Your task to perform on an android device: read, delete, or share a saved page in the chrome app Image 0: 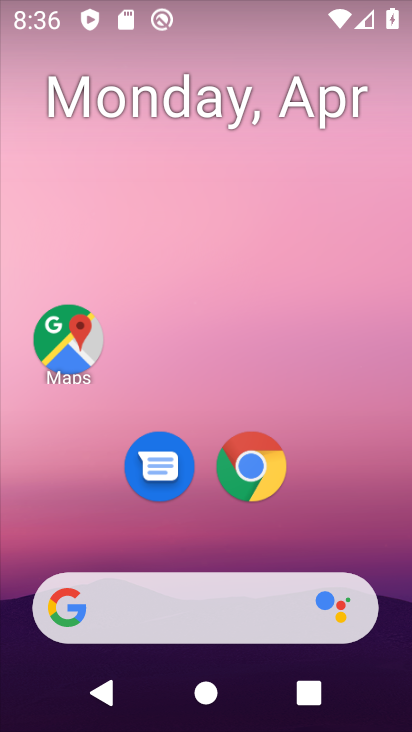
Step 0: drag from (214, 537) to (238, 129)
Your task to perform on an android device: read, delete, or share a saved page in the chrome app Image 1: 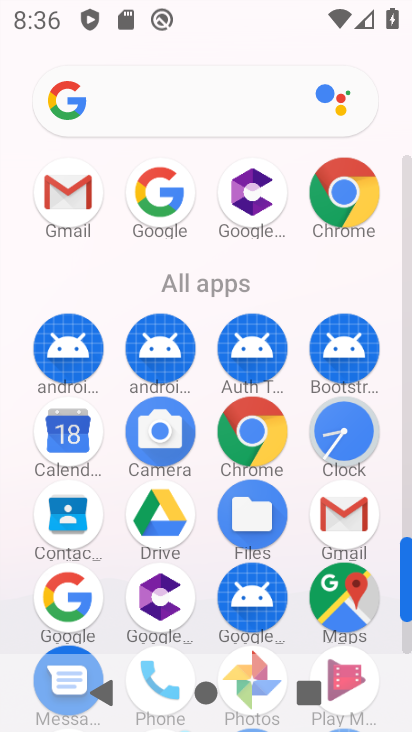
Step 1: click (347, 195)
Your task to perform on an android device: read, delete, or share a saved page in the chrome app Image 2: 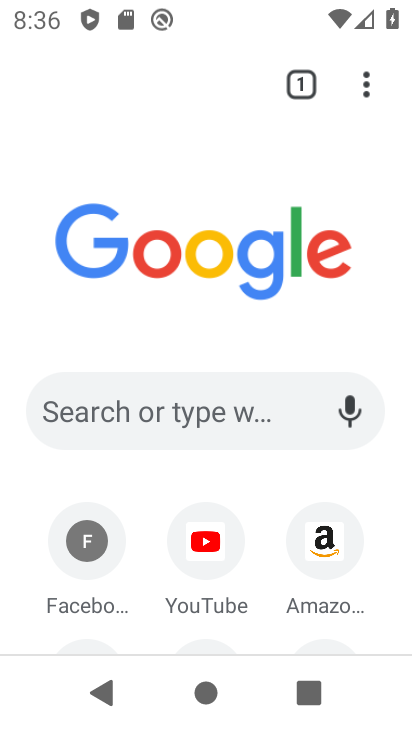
Step 2: click (371, 84)
Your task to perform on an android device: read, delete, or share a saved page in the chrome app Image 3: 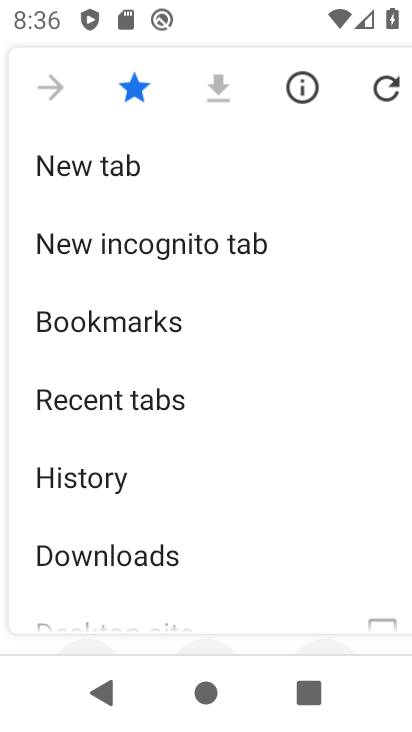
Step 3: drag from (176, 460) to (223, 363)
Your task to perform on an android device: read, delete, or share a saved page in the chrome app Image 4: 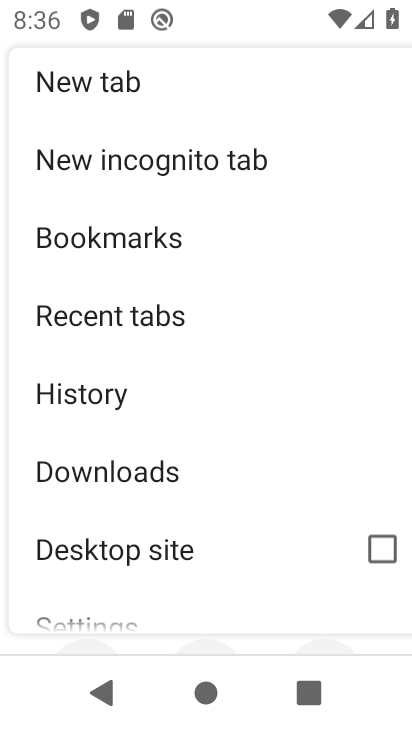
Step 4: drag from (223, 476) to (261, 398)
Your task to perform on an android device: read, delete, or share a saved page in the chrome app Image 5: 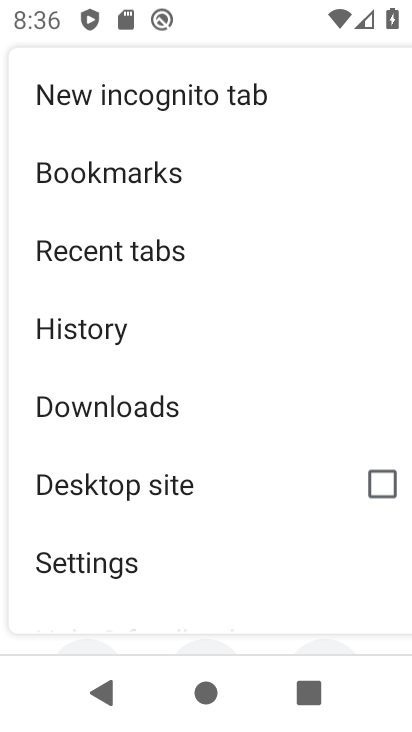
Step 5: click (158, 407)
Your task to perform on an android device: read, delete, or share a saved page in the chrome app Image 6: 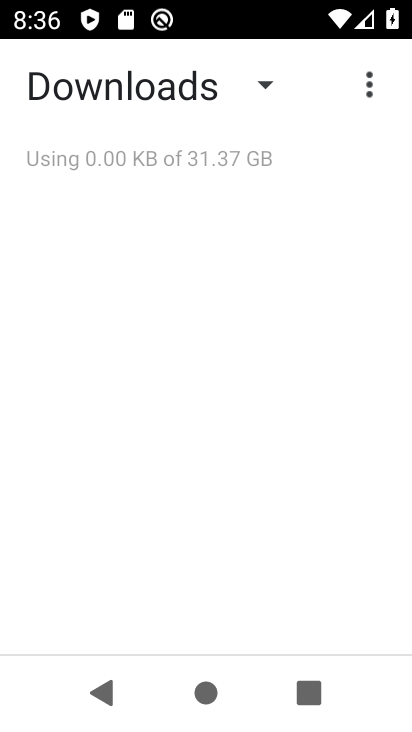
Step 6: click (267, 85)
Your task to perform on an android device: read, delete, or share a saved page in the chrome app Image 7: 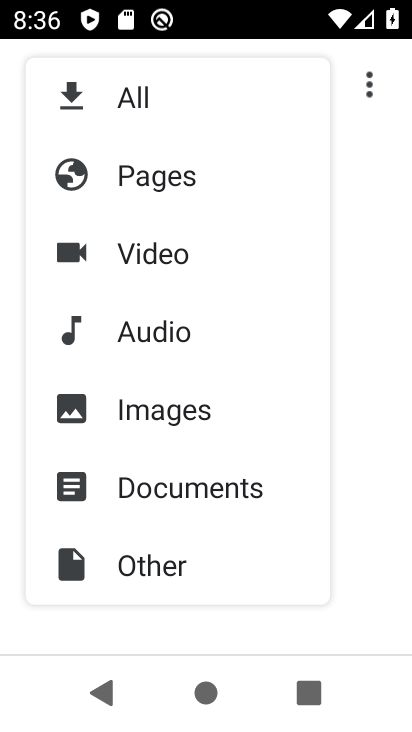
Step 7: click (177, 187)
Your task to perform on an android device: read, delete, or share a saved page in the chrome app Image 8: 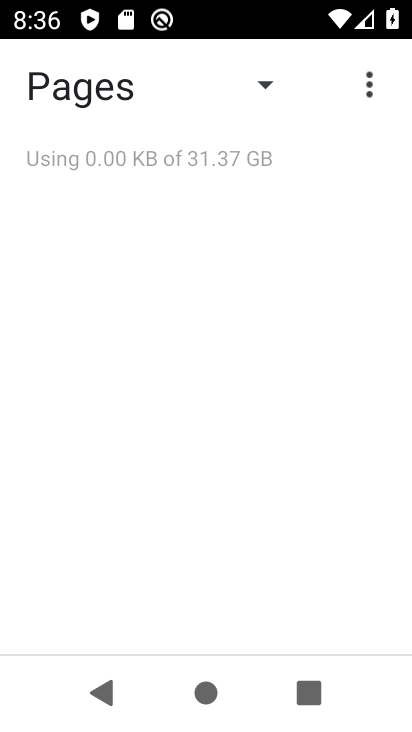
Step 8: click (260, 83)
Your task to perform on an android device: read, delete, or share a saved page in the chrome app Image 9: 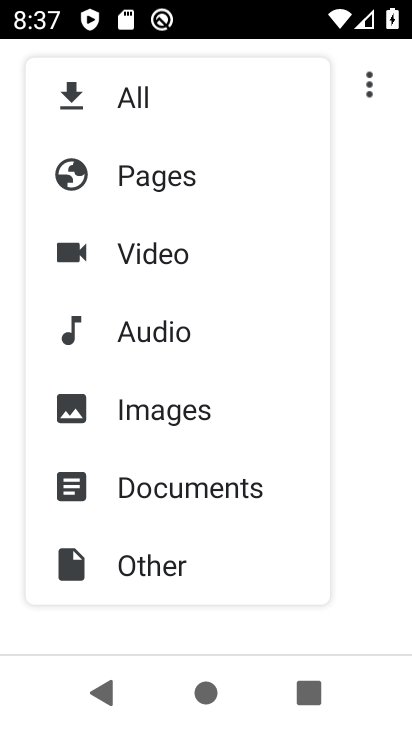
Step 9: click (151, 113)
Your task to perform on an android device: read, delete, or share a saved page in the chrome app Image 10: 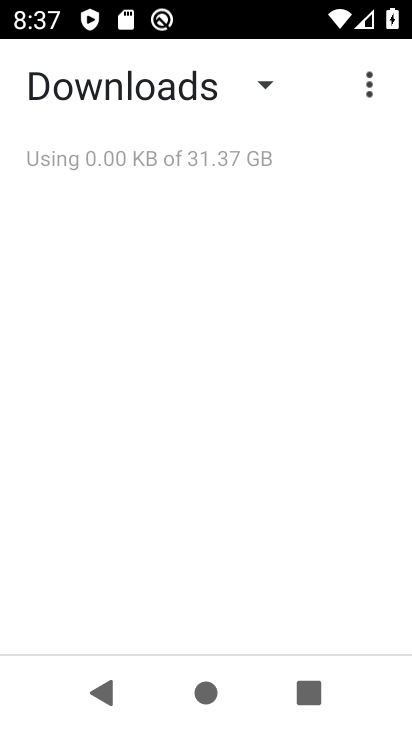
Step 10: task complete